Your task to perform on an android device: Go to CNN.com Image 0: 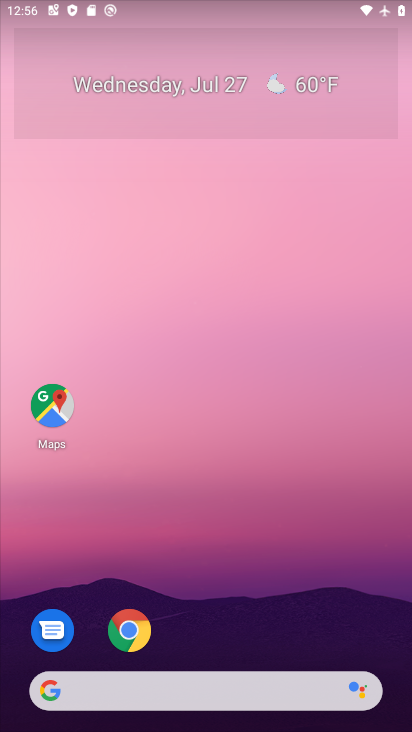
Step 0: press home button
Your task to perform on an android device: Go to CNN.com Image 1: 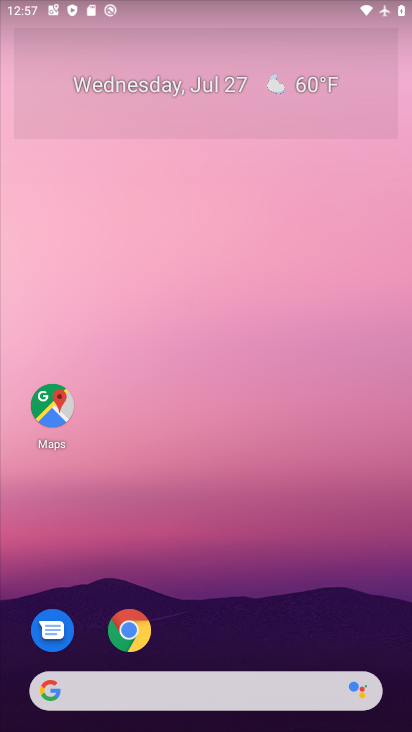
Step 1: click (49, 695)
Your task to perform on an android device: Go to CNN.com Image 2: 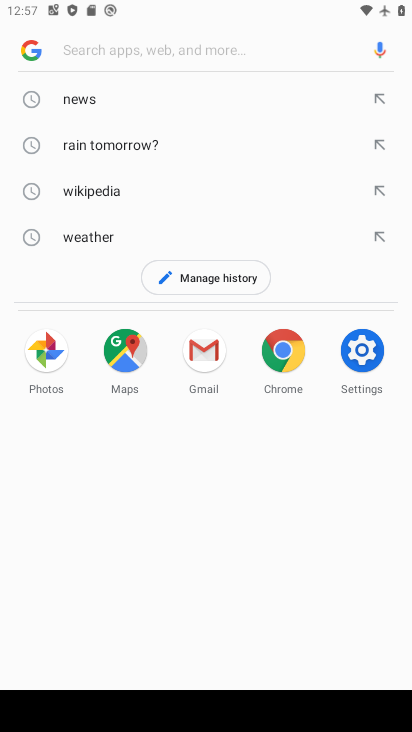
Step 2: type "CNN.com"
Your task to perform on an android device: Go to CNN.com Image 3: 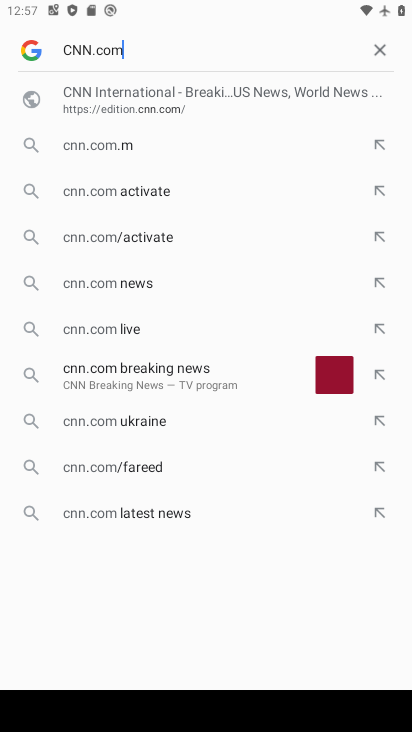
Step 3: press enter
Your task to perform on an android device: Go to CNN.com Image 4: 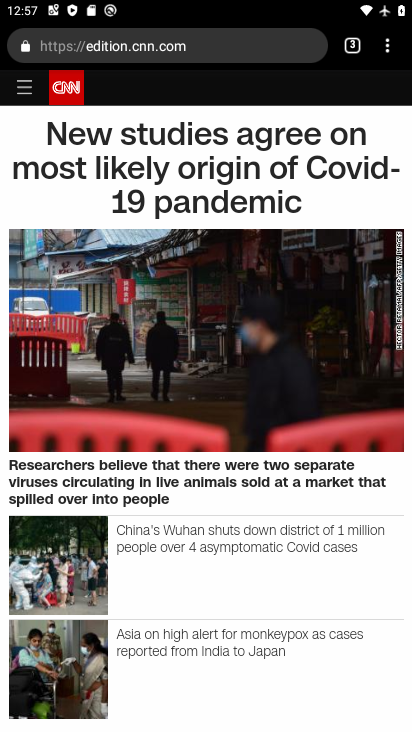
Step 4: task complete